Your task to perform on an android device: manage bookmarks in the chrome app Image 0: 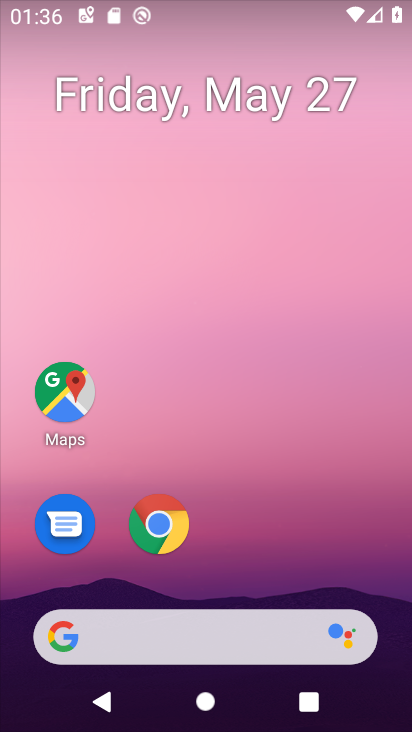
Step 0: click (173, 520)
Your task to perform on an android device: manage bookmarks in the chrome app Image 1: 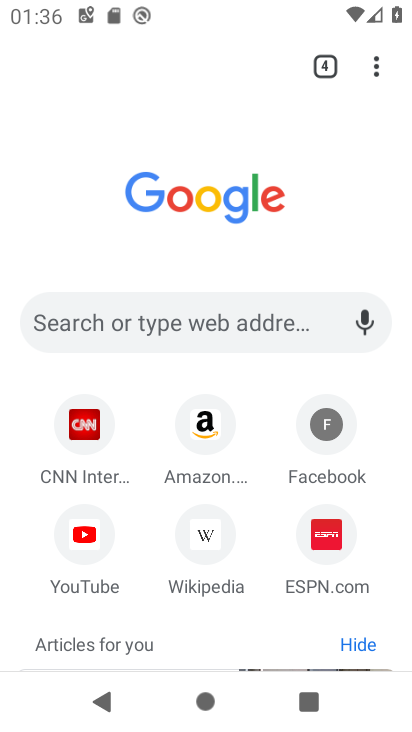
Step 1: click (376, 71)
Your task to perform on an android device: manage bookmarks in the chrome app Image 2: 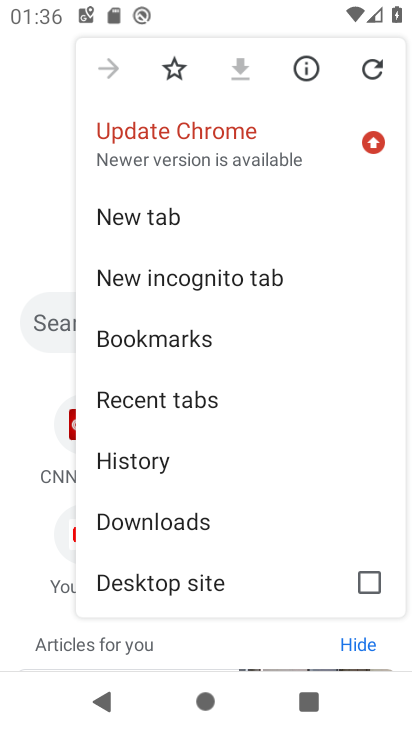
Step 2: click (198, 337)
Your task to perform on an android device: manage bookmarks in the chrome app Image 3: 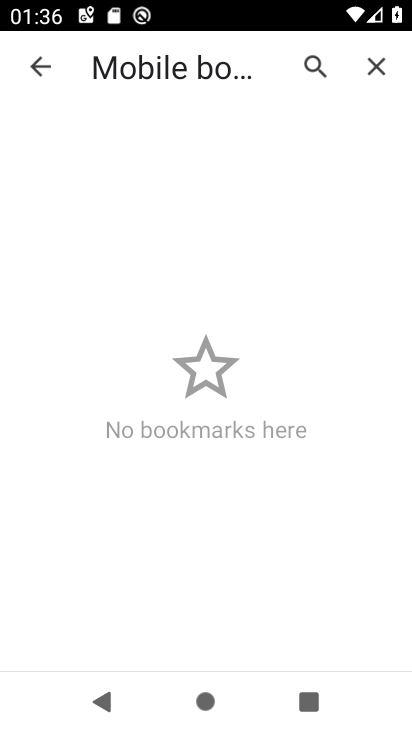
Step 3: task complete